Your task to perform on an android device: Clear the shopping cart on walmart.com. Search for "razer naga" on walmart.com, select the first entry, and add it to the cart. Image 0: 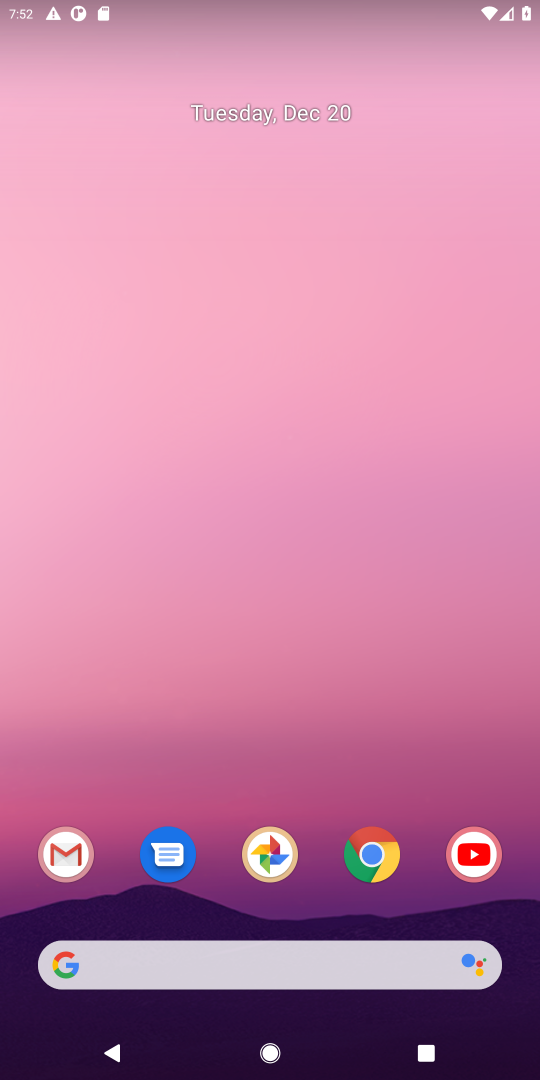
Step 0: click (380, 862)
Your task to perform on an android device: Clear the shopping cart on walmart.com. Search for "razer naga" on walmart.com, select the first entry, and add it to the cart. Image 1: 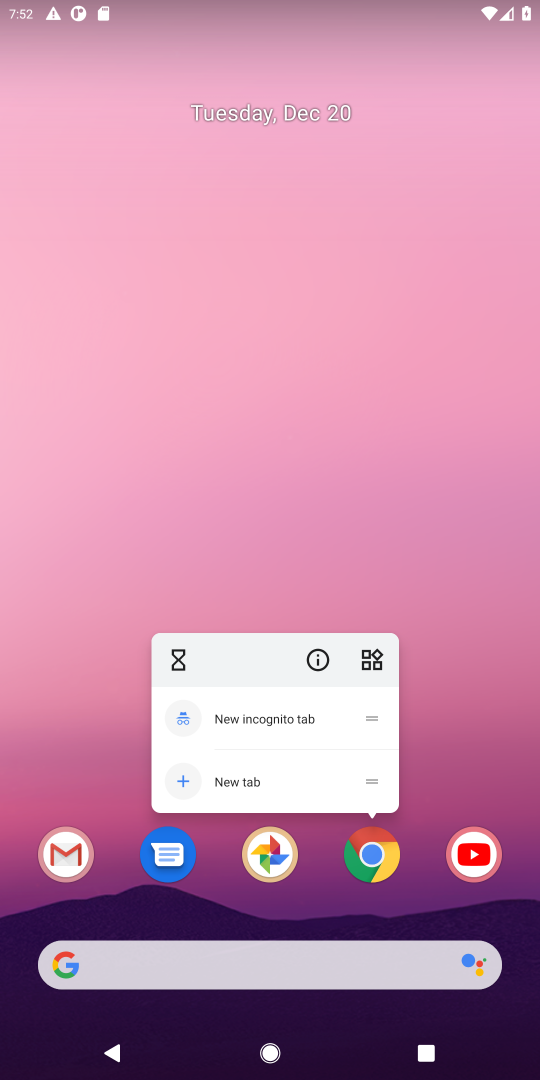
Step 1: click (377, 862)
Your task to perform on an android device: Clear the shopping cart on walmart.com. Search for "razer naga" on walmart.com, select the first entry, and add it to the cart. Image 2: 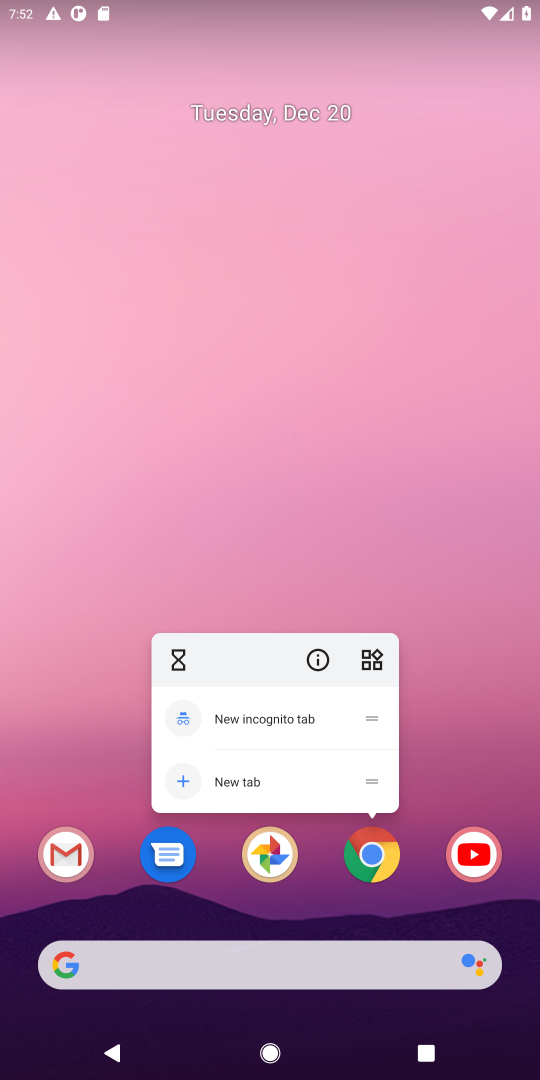
Step 2: click (377, 862)
Your task to perform on an android device: Clear the shopping cart on walmart.com. Search for "razer naga" on walmart.com, select the first entry, and add it to the cart. Image 3: 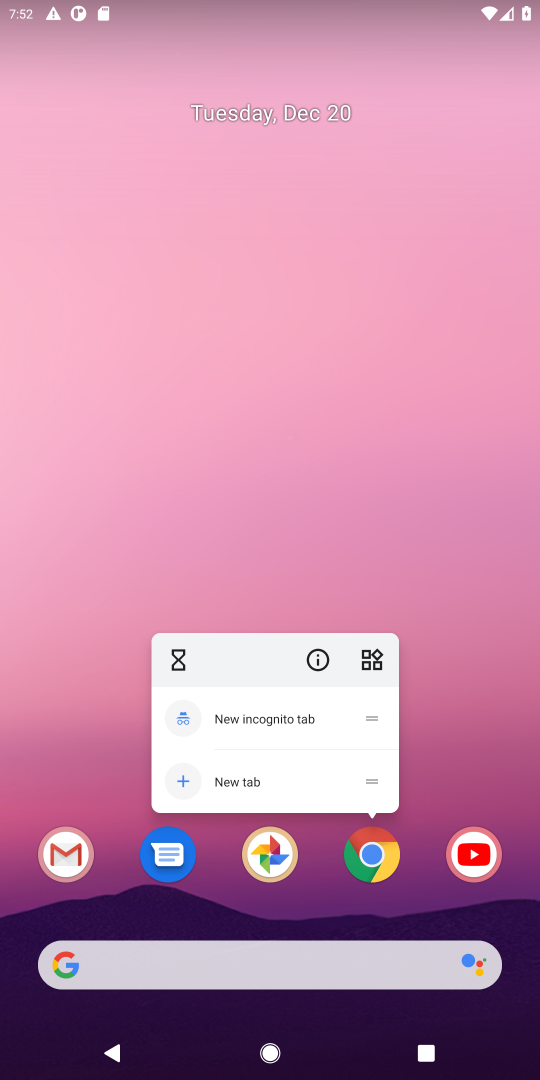
Step 3: click (374, 867)
Your task to perform on an android device: Clear the shopping cart on walmart.com. Search for "razer naga" on walmart.com, select the first entry, and add it to the cart. Image 4: 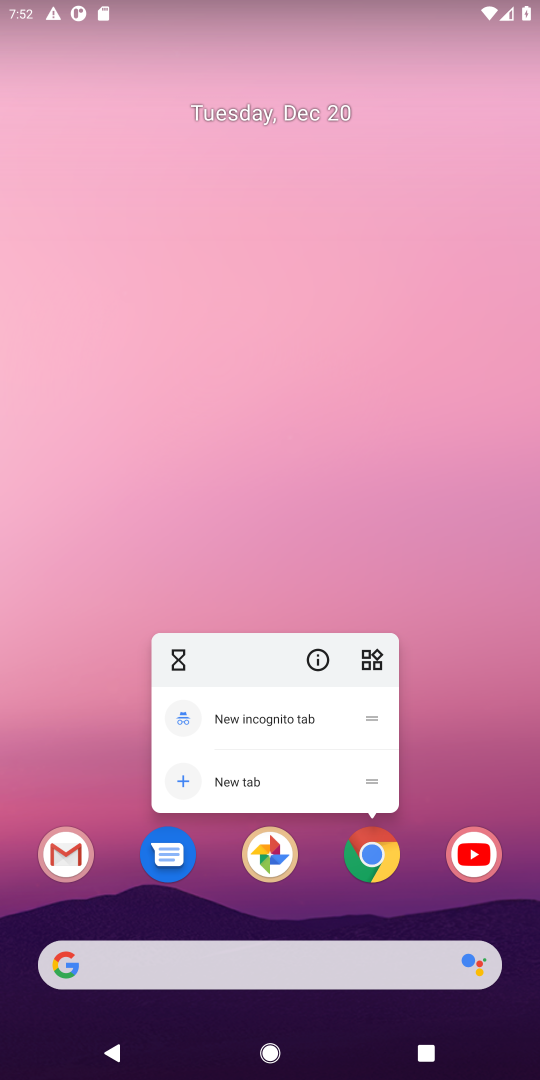
Step 4: click (380, 859)
Your task to perform on an android device: Clear the shopping cart on walmart.com. Search for "razer naga" on walmart.com, select the first entry, and add it to the cart. Image 5: 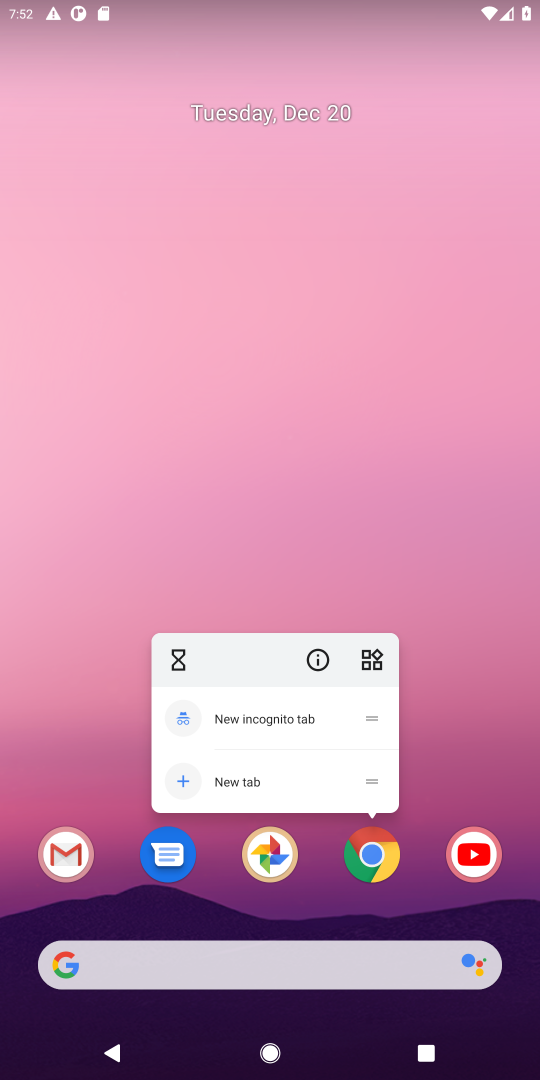
Step 5: click (378, 868)
Your task to perform on an android device: Clear the shopping cart on walmart.com. Search for "razer naga" on walmart.com, select the first entry, and add it to the cart. Image 6: 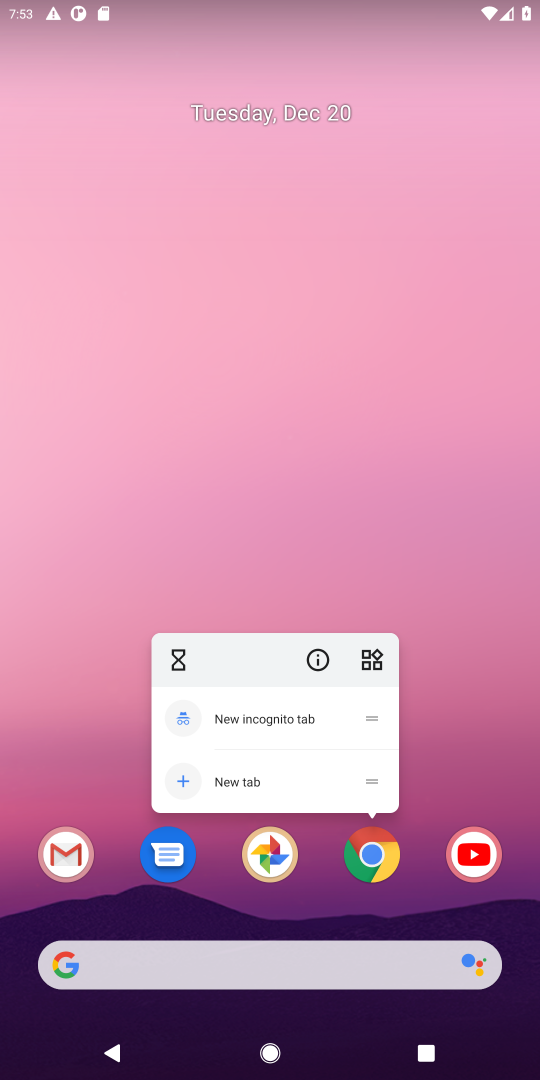
Step 6: click (369, 859)
Your task to perform on an android device: Clear the shopping cart on walmart.com. Search for "razer naga" on walmart.com, select the first entry, and add it to the cart. Image 7: 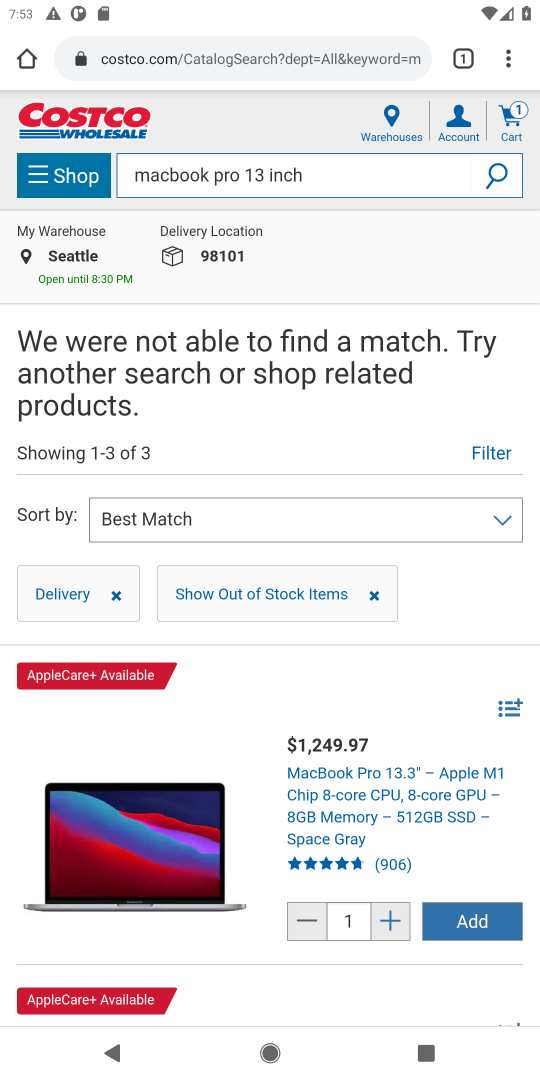
Step 7: click (150, 62)
Your task to perform on an android device: Clear the shopping cart on walmart.com. Search for "razer naga" on walmart.com, select the first entry, and add it to the cart. Image 8: 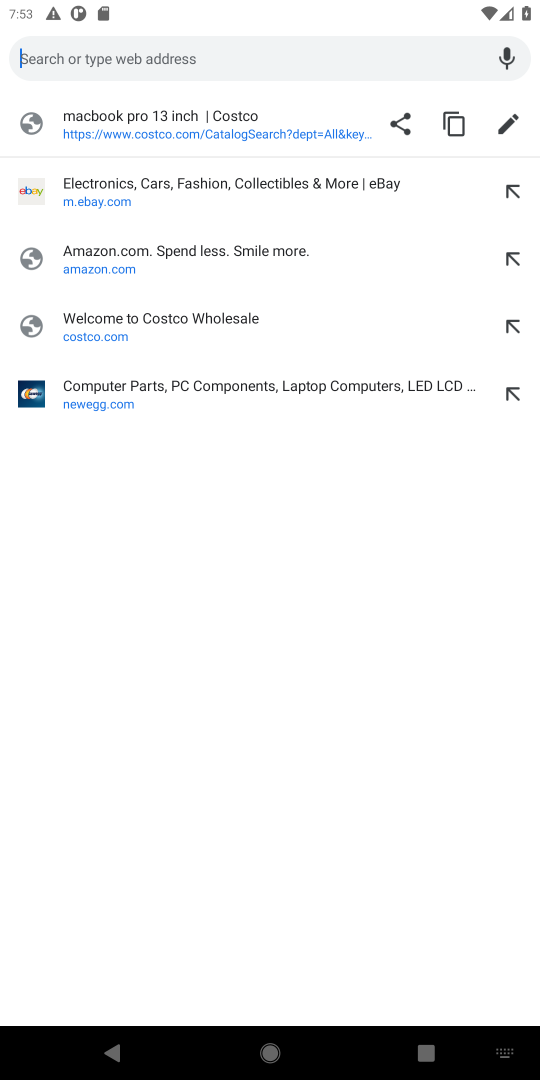
Step 8: type "walmart.com"
Your task to perform on an android device: Clear the shopping cart on walmart.com. Search for "razer naga" on walmart.com, select the first entry, and add it to the cart. Image 9: 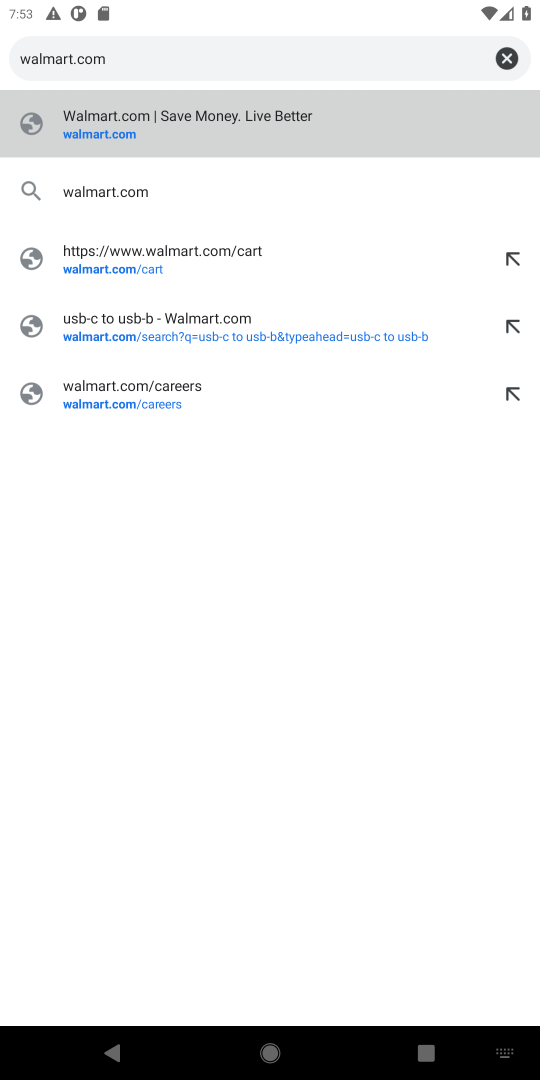
Step 9: click (99, 139)
Your task to perform on an android device: Clear the shopping cart on walmart.com. Search for "razer naga" on walmart.com, select the first entry, and add it to the cart. Image 10: 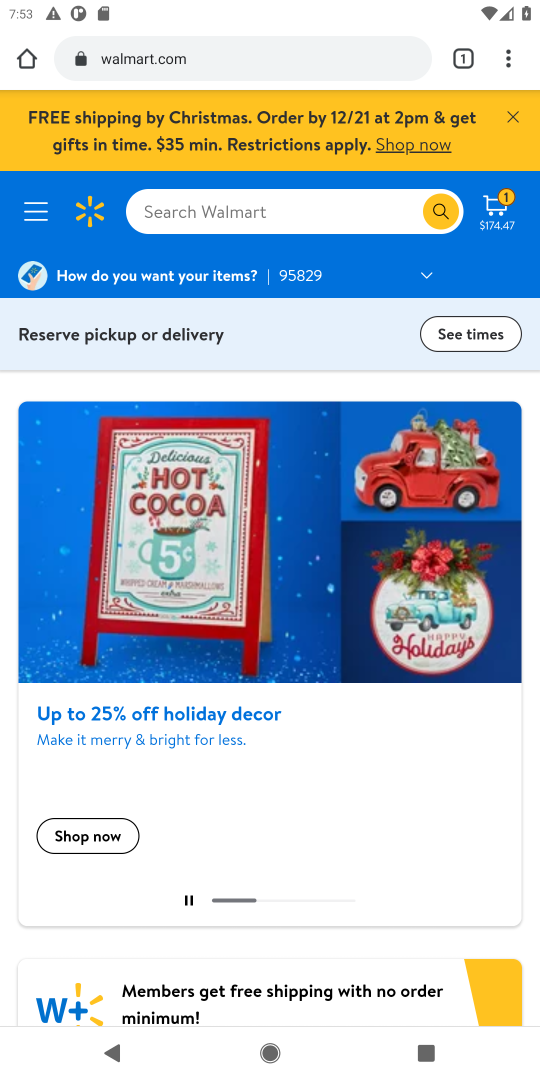
Step 10: click (491, 221)
Your task to perform on an android device: Clear the shopping cart on walmart.com. Search for "razer naga" on walmart.com, select the first entry, and add it to the cart. Image 11: 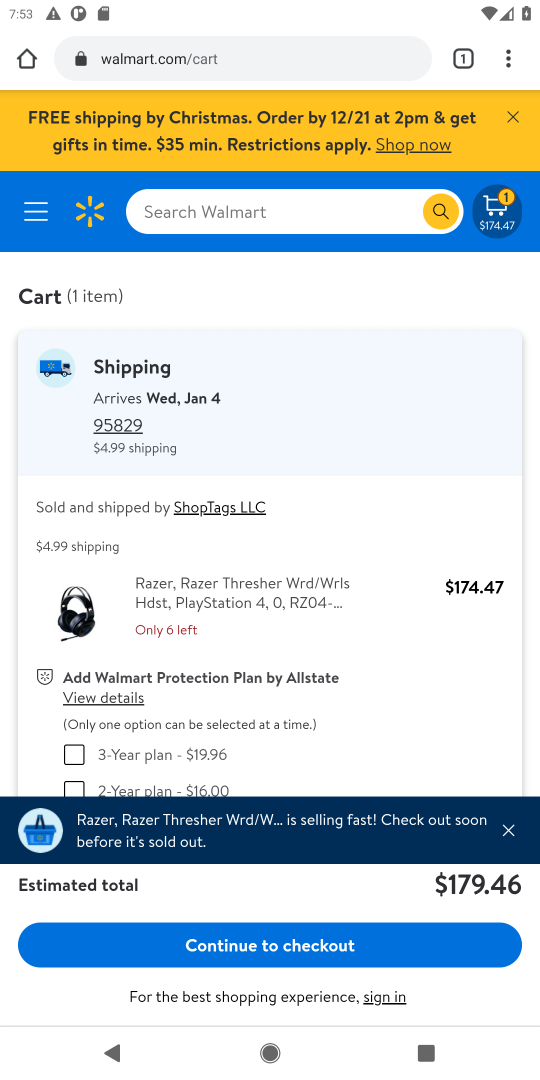
Step 11: drag from (211, 689) to (224, 476)
Your task to perform on an android device: Clear the shopping cart on walmart.com. Search for "razer naga" on walmart.com, select the first entry, and add it to the cart. Image 12: 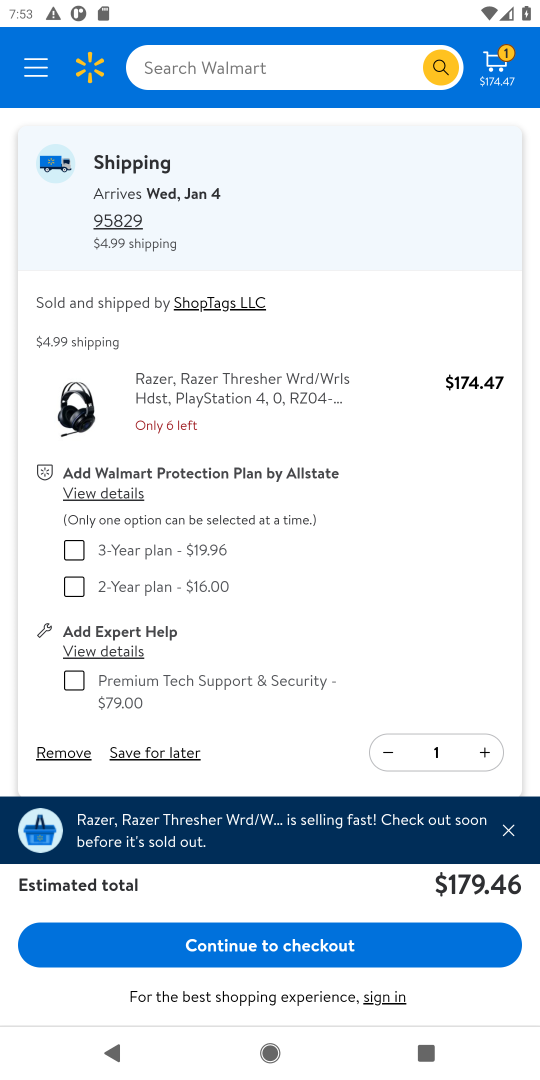
Step 12: click (61, 753)
Your task to perform on an android device: Clear the shopping cart on walmart.com. Search for "razer naga" on walmart.com, select the first entry, and add it to the cart. Image 13: 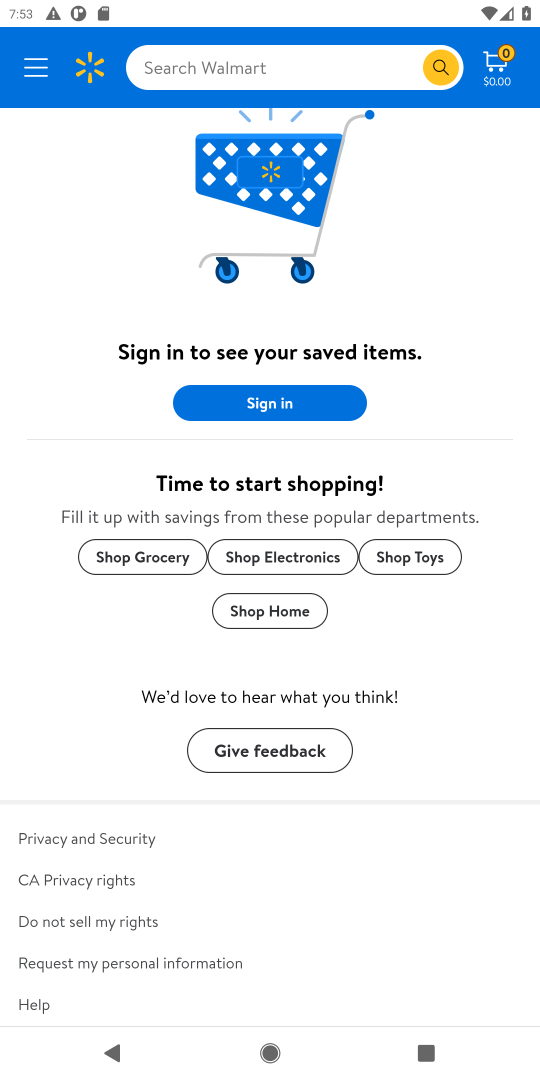
Step 13: click (250, 69)
Your task to perform on an android device: Clear the shopping cart on walmart.com. Search for "razer naga" on walmart.com, select the first entry, and add it to the cart. Image 14: 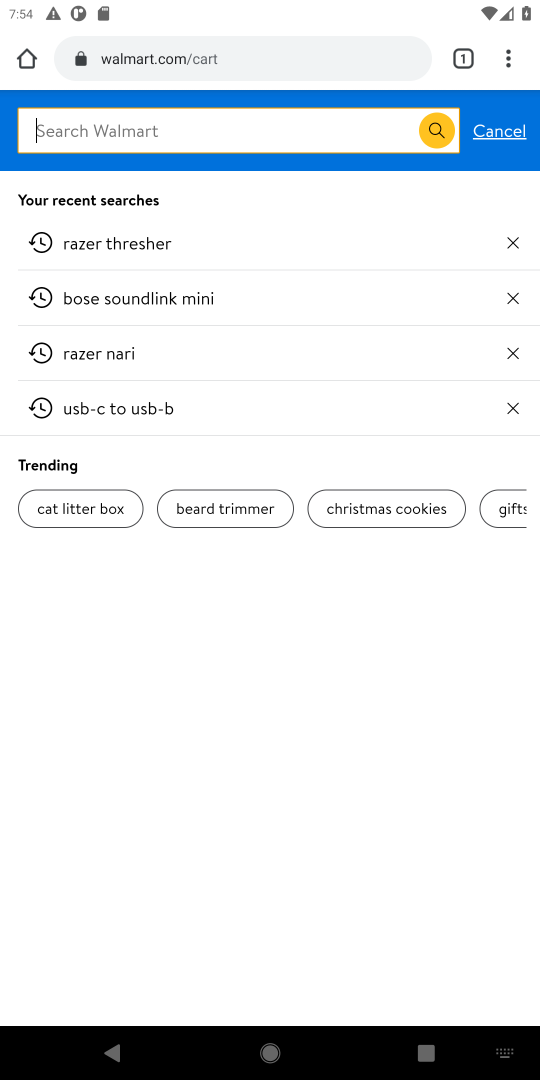
Step 14: type "razer naga"
Your task to perform on an android device: Clear the shopping cart on walmart.com. Search for "razer naga" on walmart.com, select the first entry, and add it to the cart. Image 15: 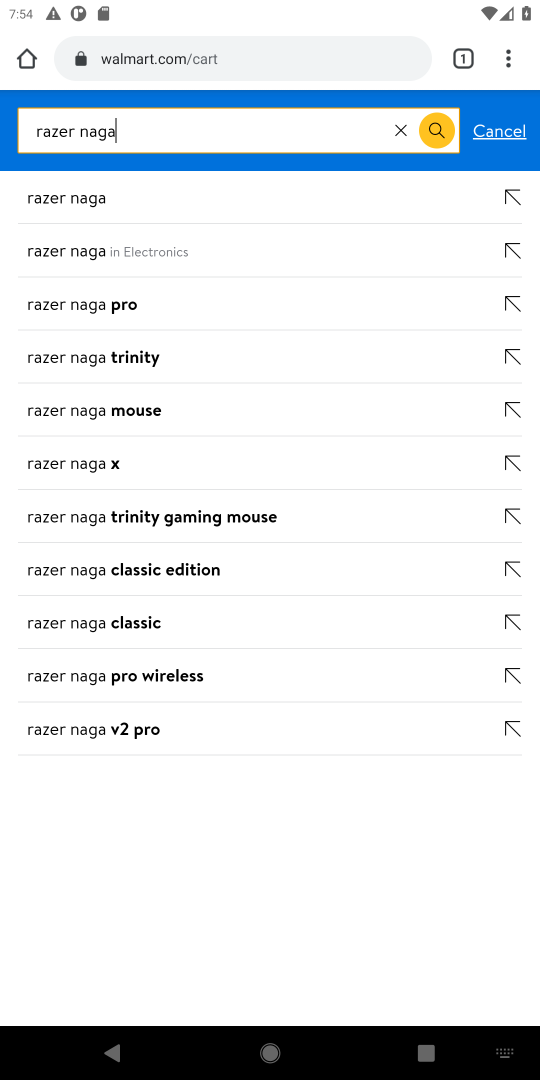
Step 15: click (84, 211)
Your task to perform on an android device: Clear the shopping cart on walmart.com. Search for "razer naga" on walmart.com, select the first entry, and add it to the cart. Image 16: 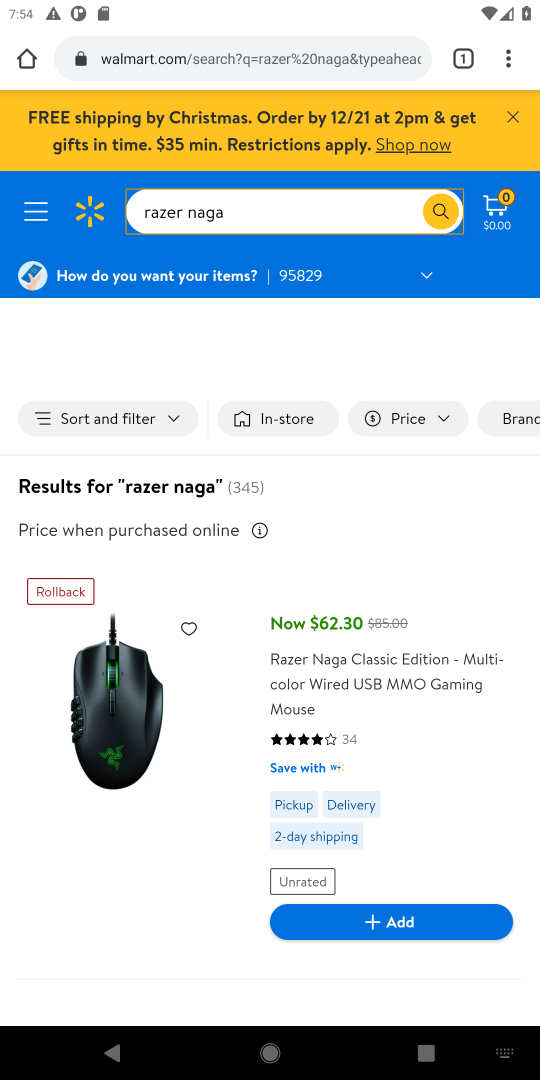
Step 16: click (387, 925)
Your task to perform on an android device: Clear the shopping cart on walmart.com. Search for "razer naga" on walmart.com, select the first entry, and add it to the cart. Image 17: 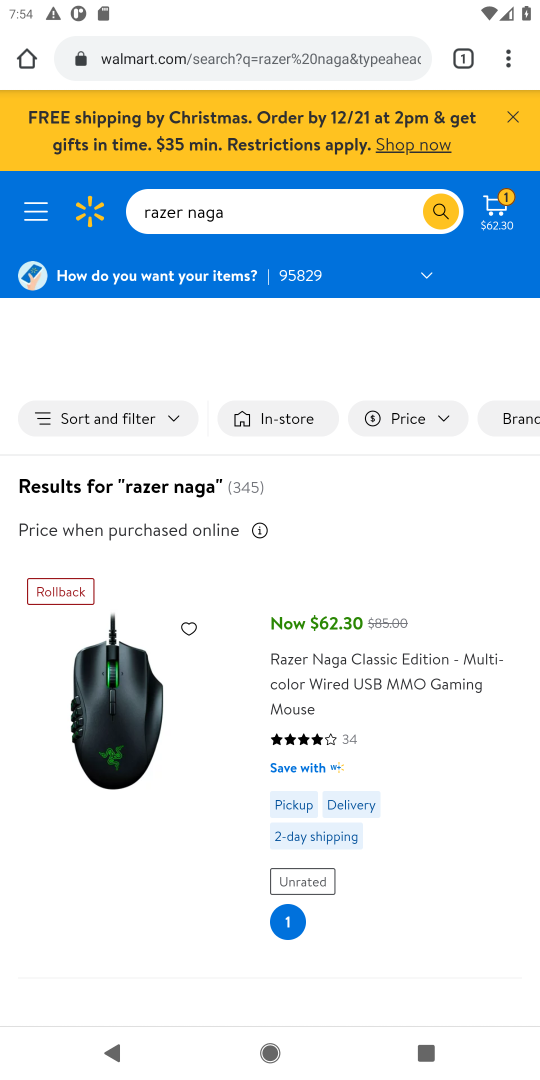
Step 17: task complete